Your task to perform on an android device: Search for sushi restaurants on Maps Image 0: 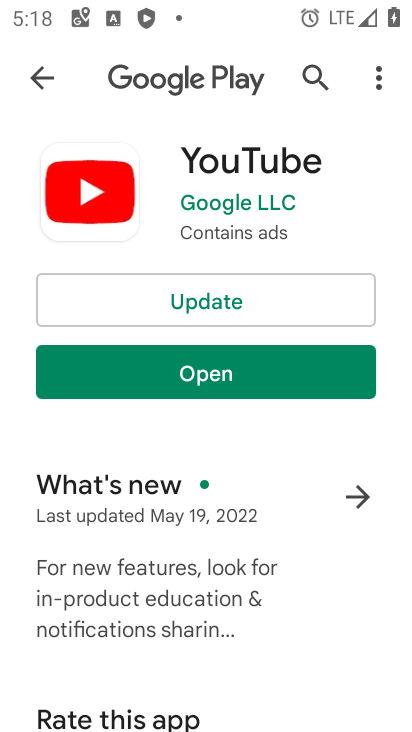
Step 0: press home button
Your task to perform on an android device: Search for sushi restaurants on Maps Image 1: 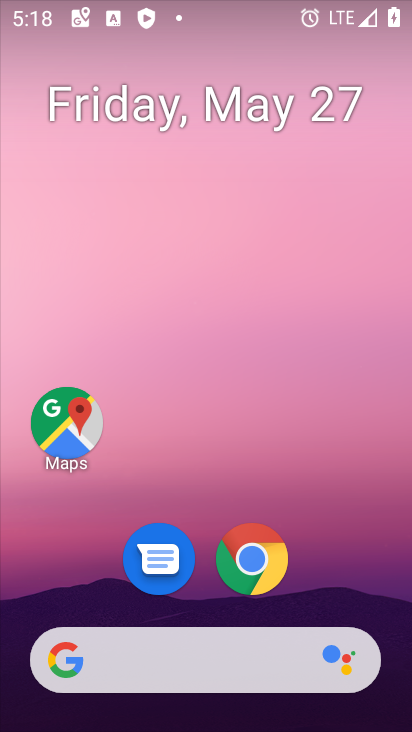
Step 1: drag from (335, 680) to (292, 5)
Your task to perform on an android device: Search for sushi restaurants on Maps Image 2: 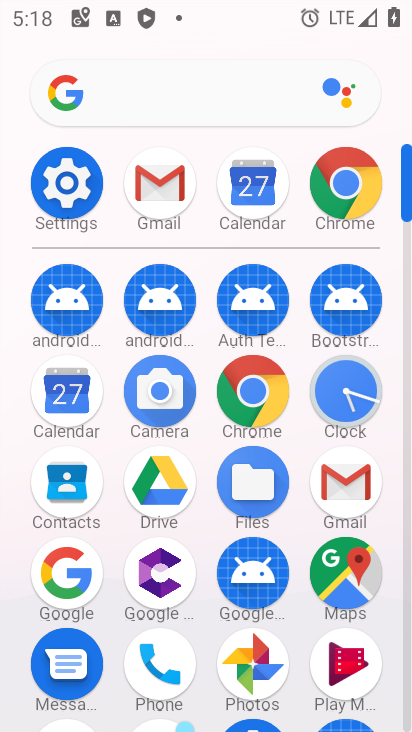
Step 2: click (360, 581)
Your task to perform on an android device: Search for sushi restaurants on Maps Image 3: 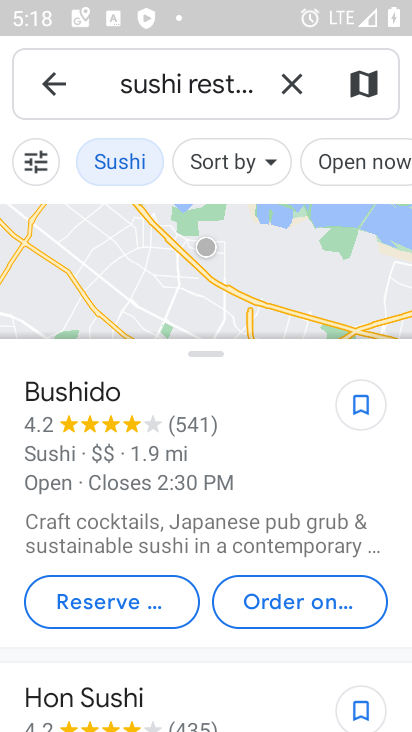
Step 3: task complete